Your task to perform on an android device: see creations saved in the google photos Image 0: 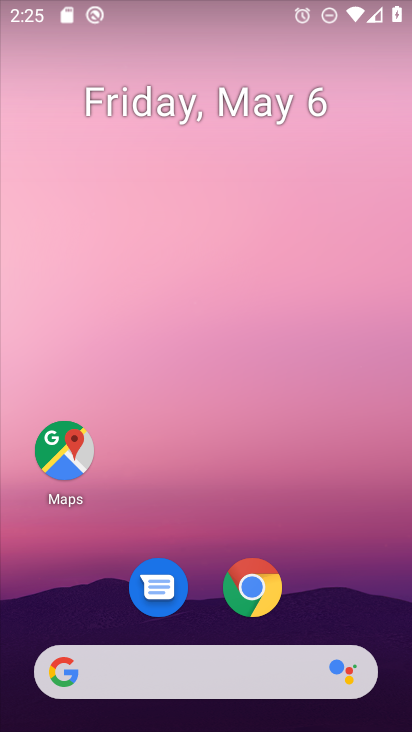
Step 0: drag from (351, 575) to (323, 33)
Your task to perform on an android device: see creations saved in the google photos Image 1: 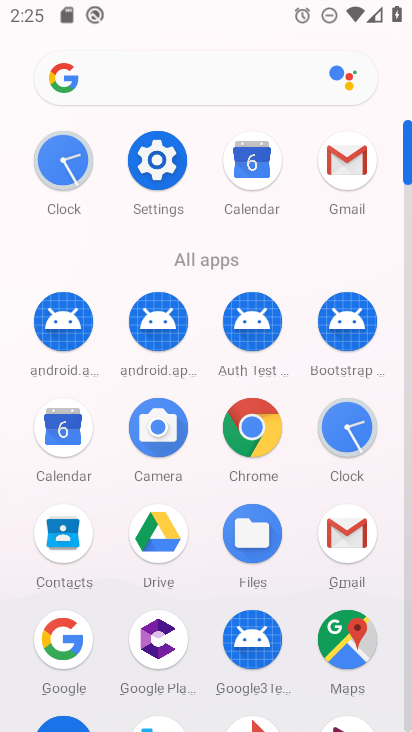
Step 1: drag from (187, 549) to (190, 282)
Your task to perform on an android device: see creations saved in the google photos Image 2: 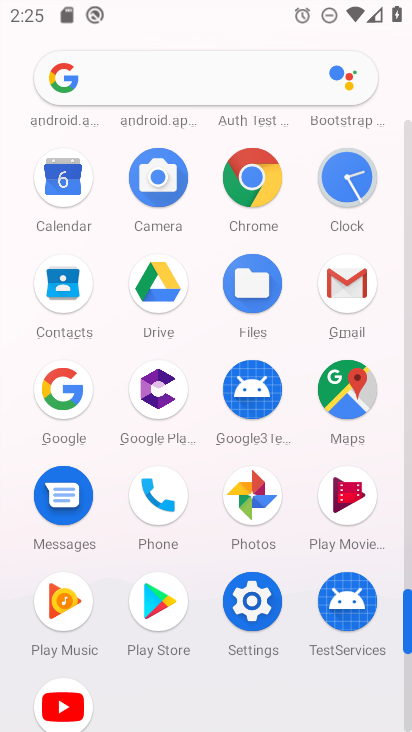
Step 2: click (253, 486)
Your task to perform on an android device: see creations saved in the google photos Image 3: 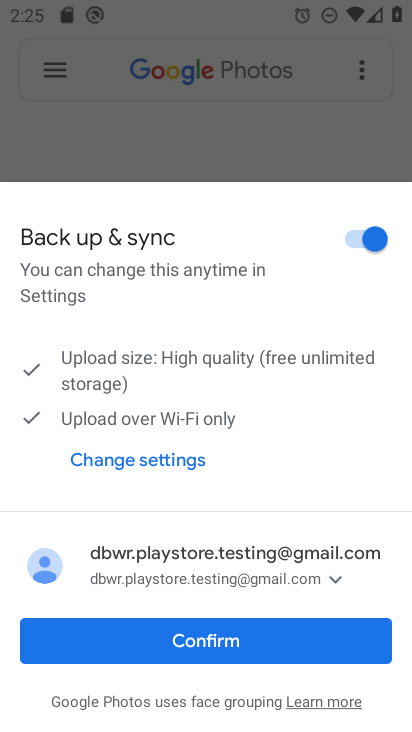
Step 3: click (277, 632)
Your task to perform on an android device: see creations saved in the google photos Image 4: 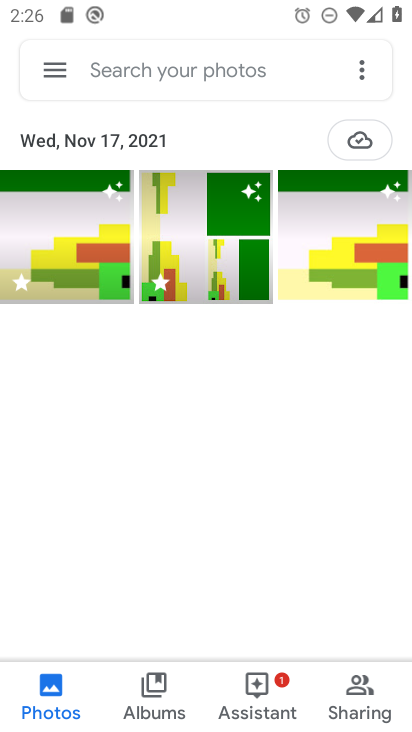
Step 4: click (213, 70)
Your task to perform on an android device: see creations saved in the google photos Image 5: 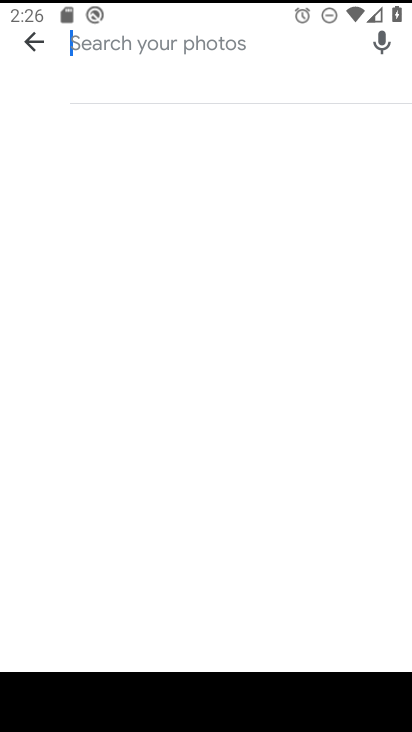
Step 5: click (38, 39)
Your task to perform on an android device: see creations saved in the google photos Image 6: 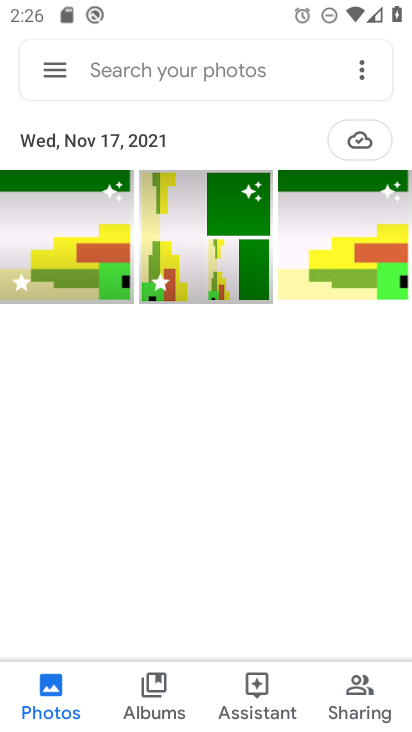
Step 6: click (130, 66)
Your task to perform on an android device: see creations saved in the google photos Image 7: 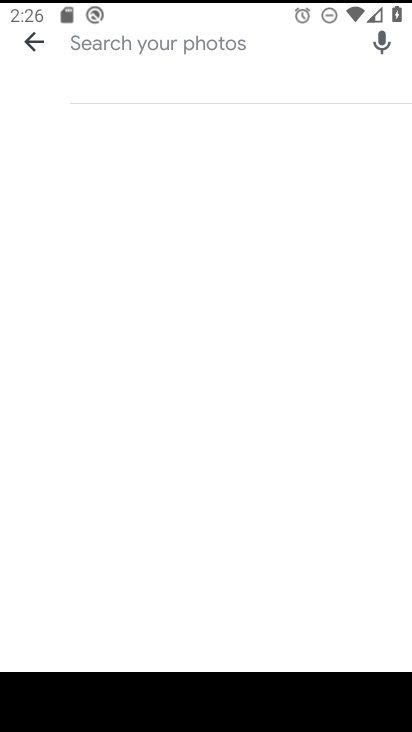
Step 7: click (35, 38)
Your task to perform on an android device: see creations saved in the google photos Image 8: 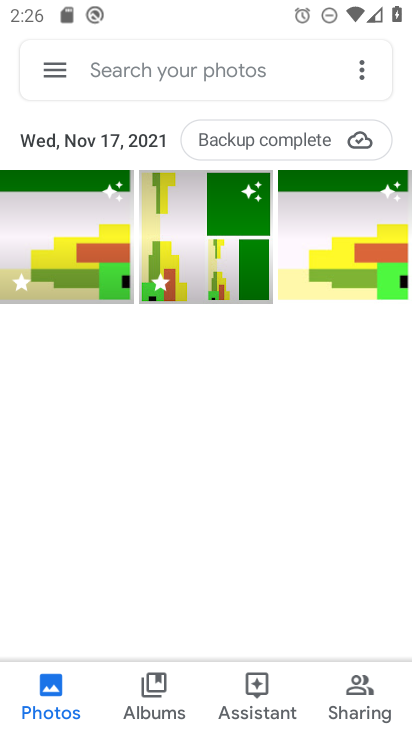
Step 8: click (248, 60)
Your task to perform on an android device: see creations saved in the google photos Image 9: 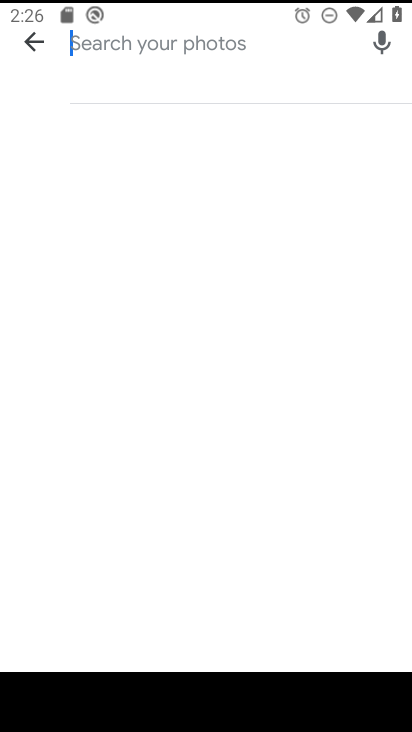
Step 9: type "creations"
Your task to perform on an android device: see creations saved in the google photos Image 10: 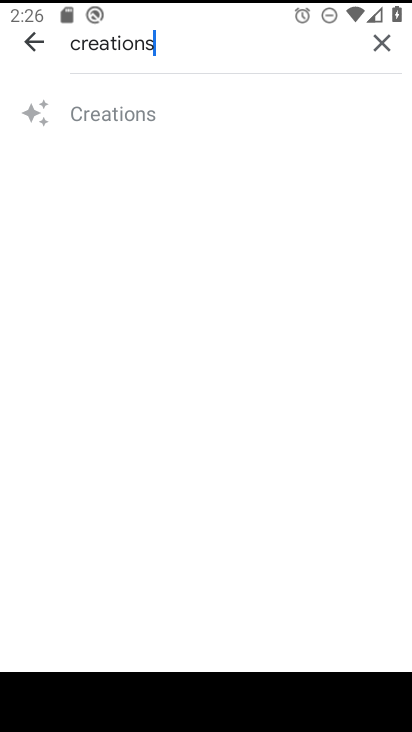
Step 10: click (134, 110)
Your task to perform on an android device: see creations saved in the google photos Image 11: 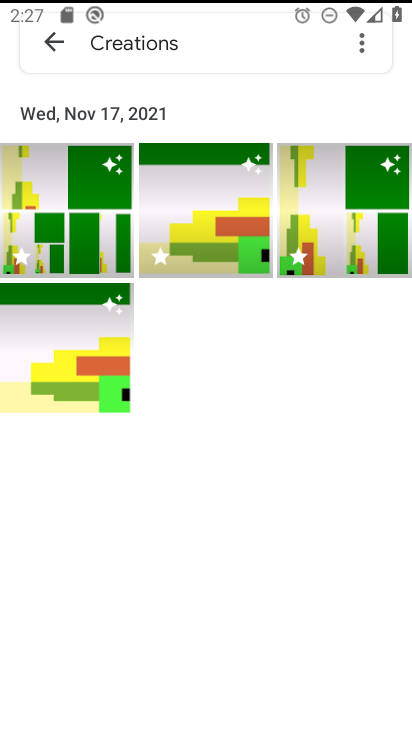
Step 11: task complete